Your task to perform on an android device: open app "NewsBreak: Local News & Alerts" Image 0: 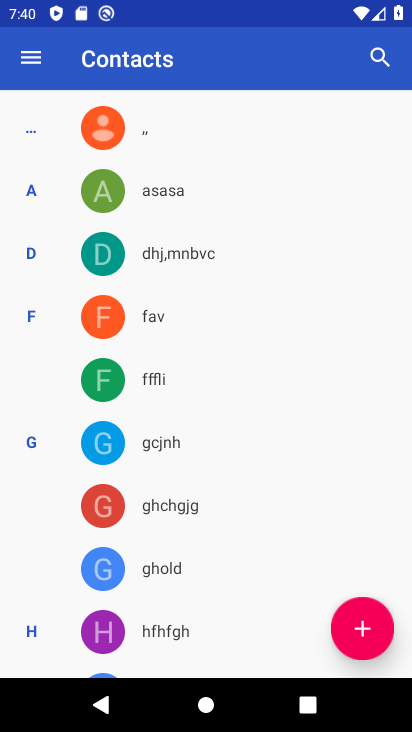
Step 0: press home button
Your task to perform on an android device: open app "NewsBreak: Local News & Alerts" Image 1: 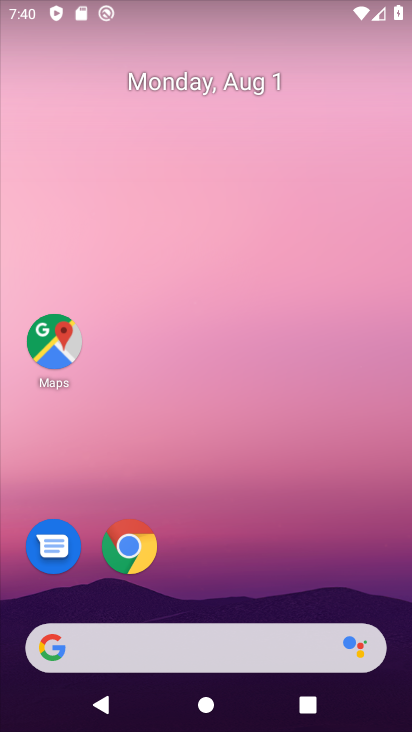
Step 1: drag from (245, 528) to (281, 35)
Your task to perform on an android device: open app "NewsBreak: Local News & Alerts" Image 2: 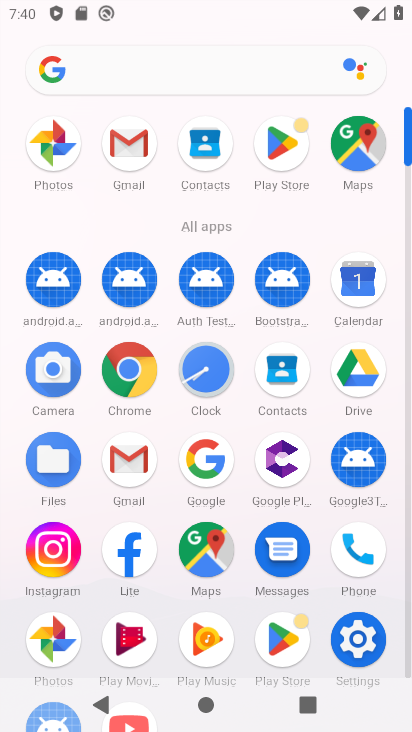
Step 2: click (275, 139)
Your task to perform on an android device: open app "NewsBreak: Local News & Alerts" Image 3: 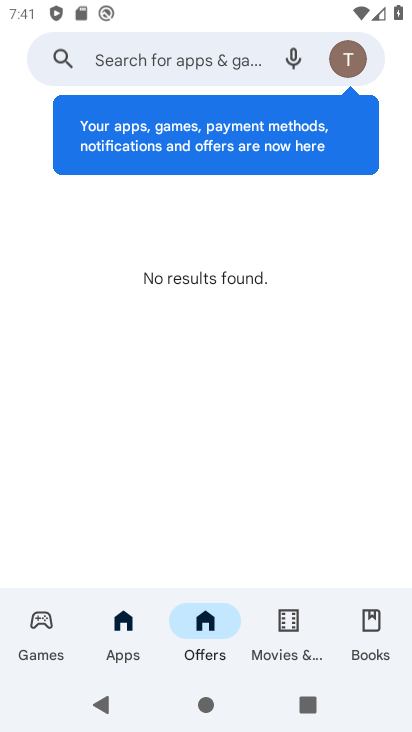
Step 3: click (49, 628)
Your task to perform on an android device: open app "NewsBreak: Local News & Alerts" Image 4: 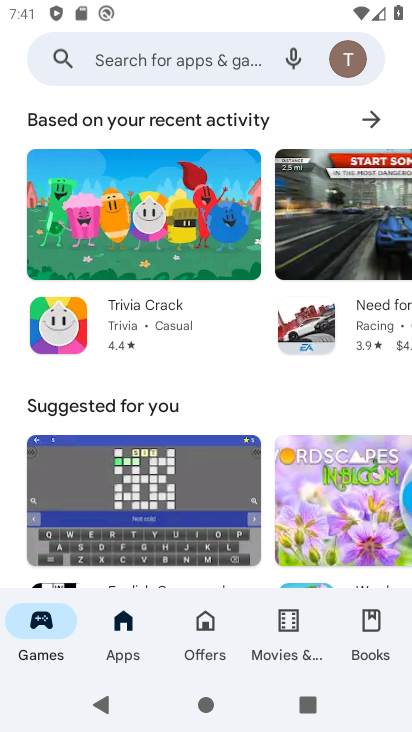
Step 4: click (183, 47)
Your task to perform on an android device: open app "NewsBreak: Local News & Alerts" Image 5: 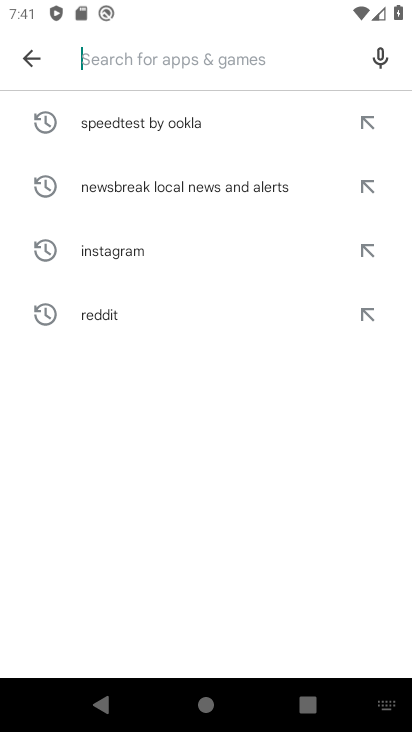
Step 5: click (25, 50)
Your task to perform on an android device: open app "NewsBreak: Local News & Alerts" Image 6: 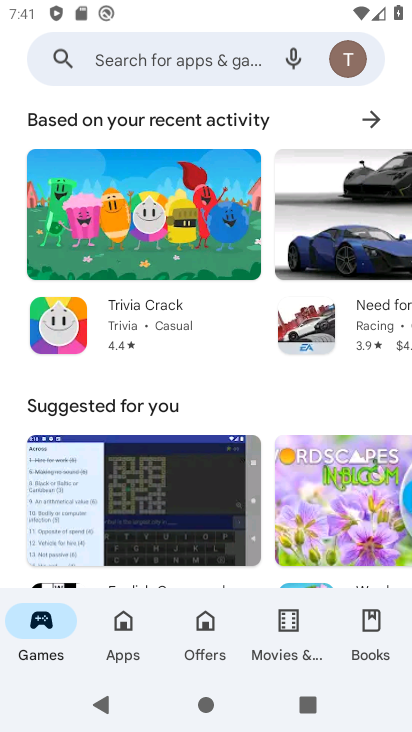
Step 6: click (128, 627)
Your task to perform on an android device: open app "NewsBreak: Local News & Alerts" Image 7: 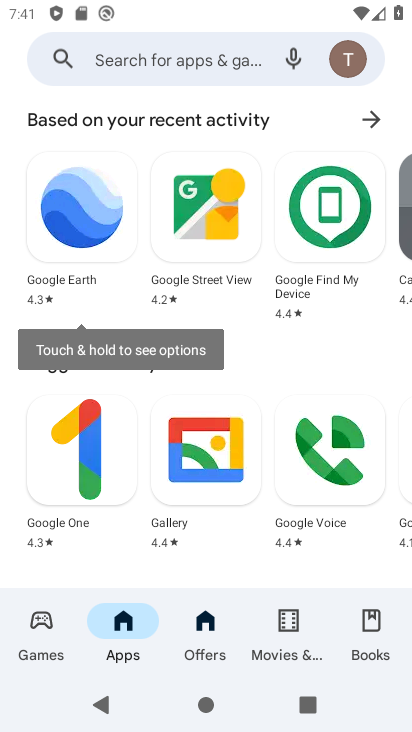
Step 7: click (193, 56)
Your task to perform on an android device: open app "NewsBreak: Local News & Alerts" Image 8: 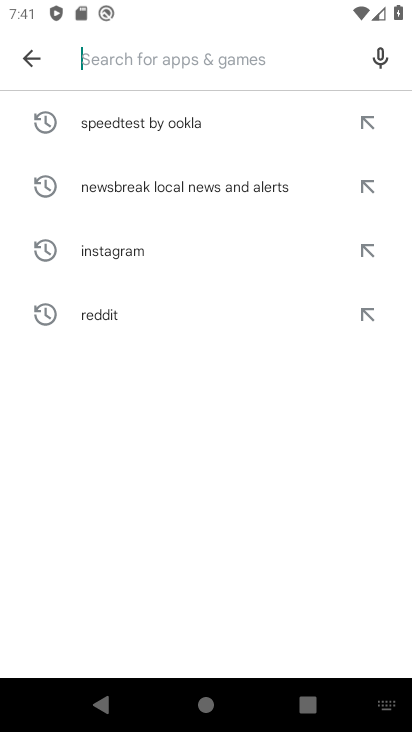
Step 8: click (265, 183)
Your task to perform on an android device: open app "NewsBreak: Local News & Alerts" Image 9: 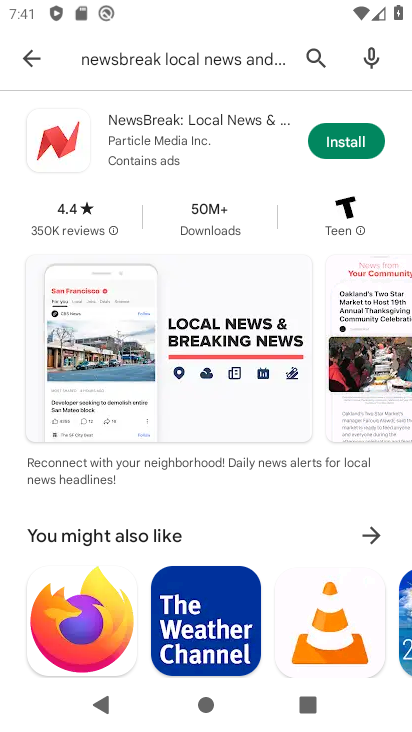
Step 9: task complete